Your task to perform on an android device: Open Google Image 0: 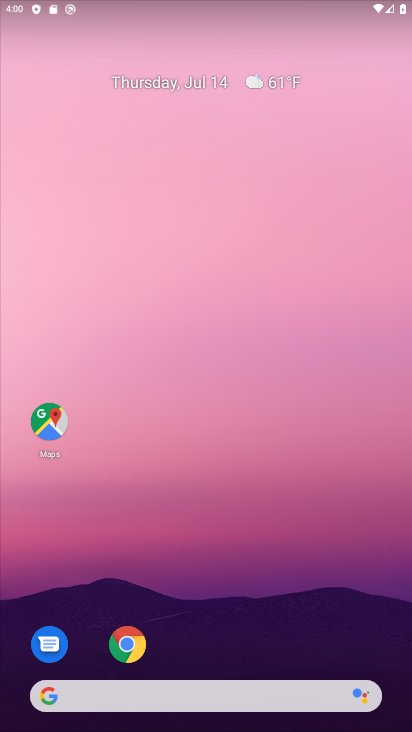
Step 0: drag from (219, 660) to (409, 7)
Your task to perform on an android device: Open Google Image 1: 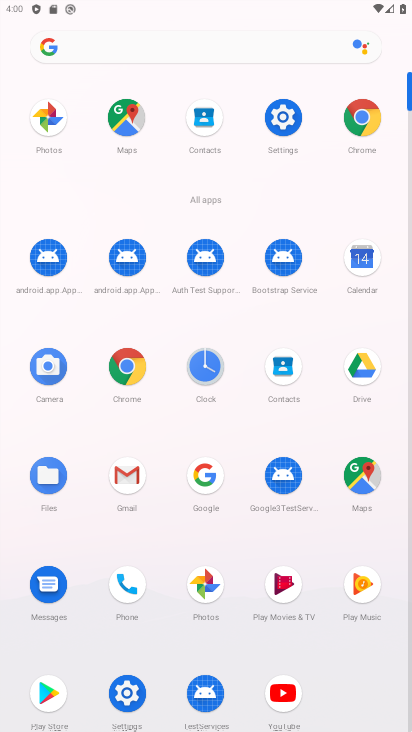
Step 1: click (212, 469)
Your task to perform on an android device: Open Google Image 2: 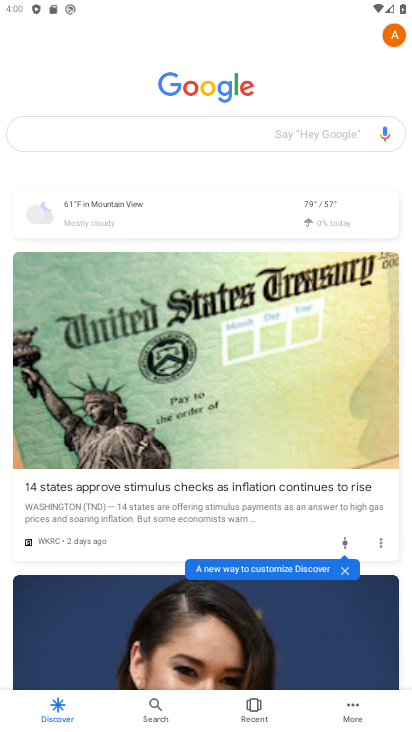
Step 2: task complete